Your task to perform on an android device: Open calendar and show me the third week of next month Image 0: 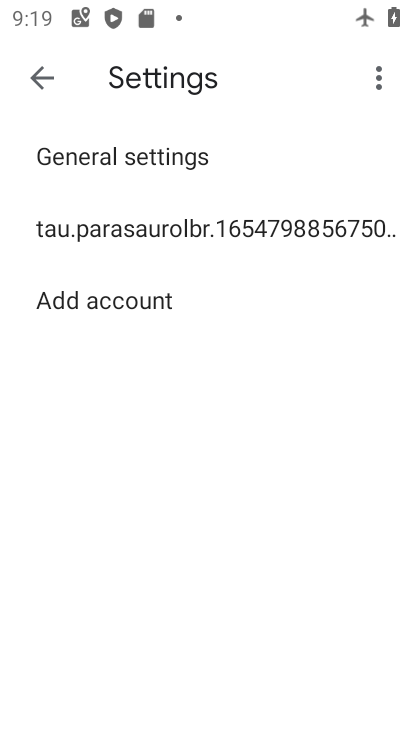
Step 0: press home button
Your task to perform on an android device: Open calendar and show me the third week of next month Image 1: 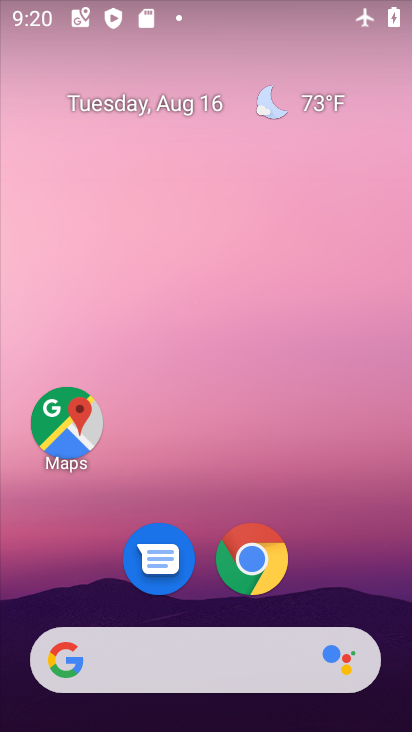
Step 1: drag from (340, 579) to (278, 226)
Your task to perform on an android device: Open calendar and show me the third week of next month Image 2: 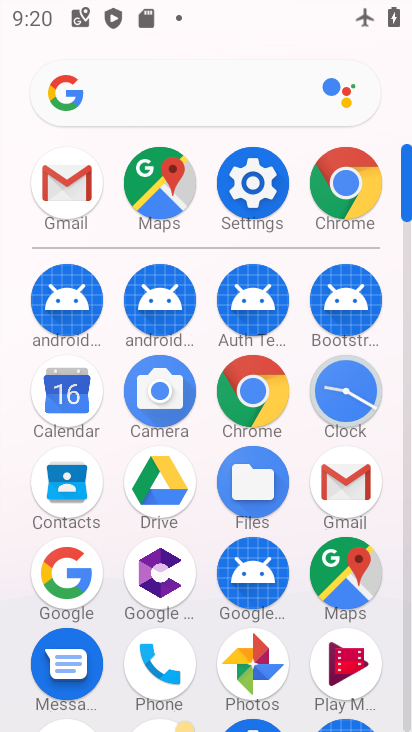
Step 2: click (66, 398)
Your task to perform on an android device: Open calendar and show me the third week of next month Image 3: 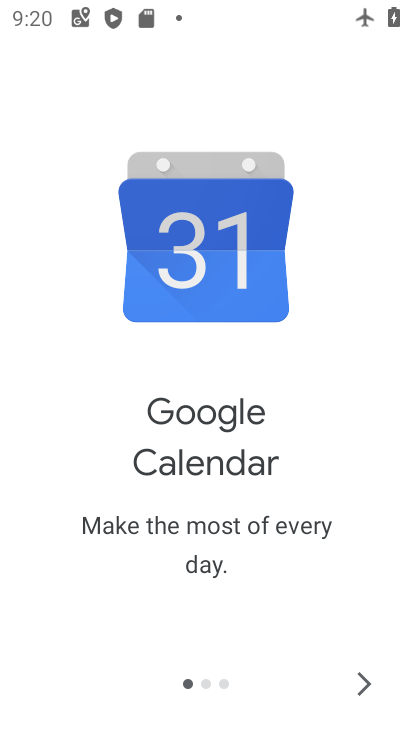
Step 3: click (363, 684)
Your task to perform on an android device: Open calendar and show me the third week of next month Image 4: 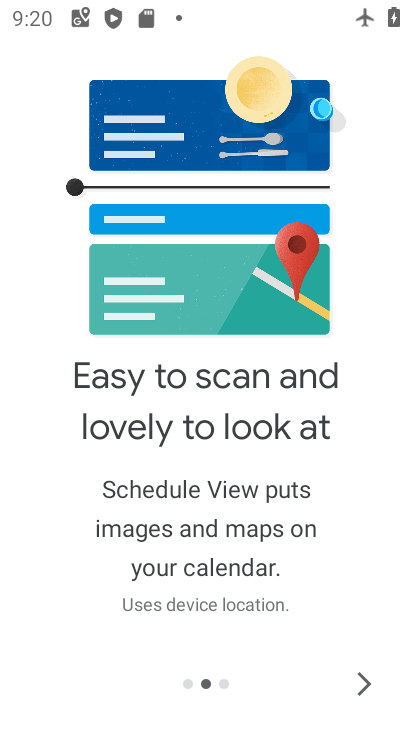
Step 4: click (363, 684)
Your task to perform on an android device: Open calendar and show me the third week of next month Image 5: 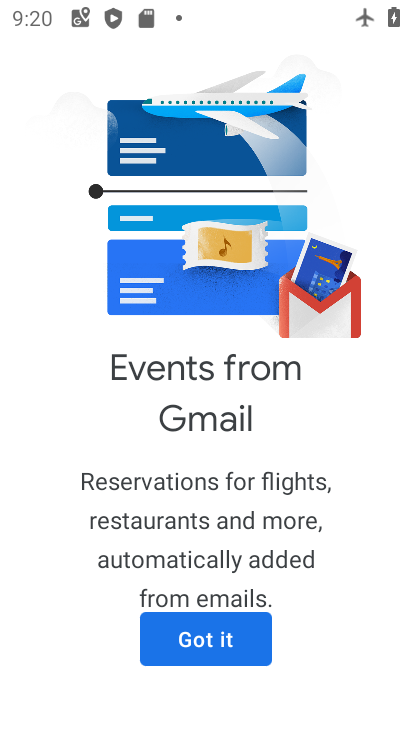
Step 5: click (242, 641)
Your task to perform on an android device: Open calendar and show me the third week of next month Image 6: 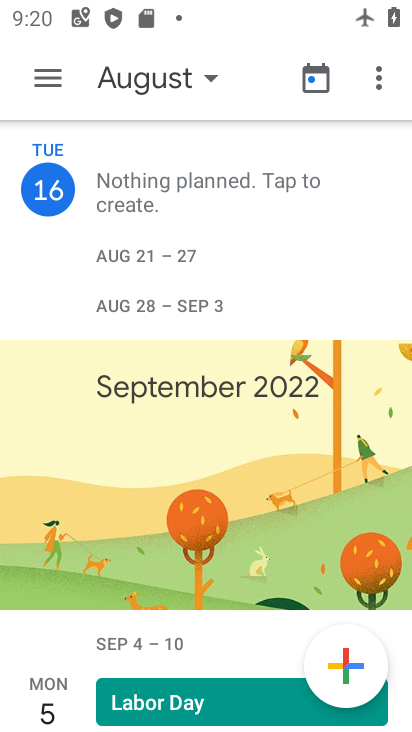
Step 6: click (188, 66)
Your task to perform on an android device: Open calendar and show me the third week of next month Image 7: 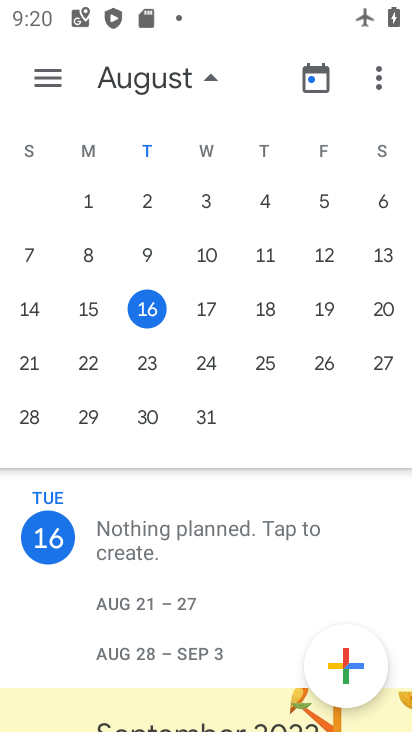
Step 7: drag from (344, 244) to (0, 251)
Your task to perform on an android device: Open calendar and show me the third week of next month Image 8: 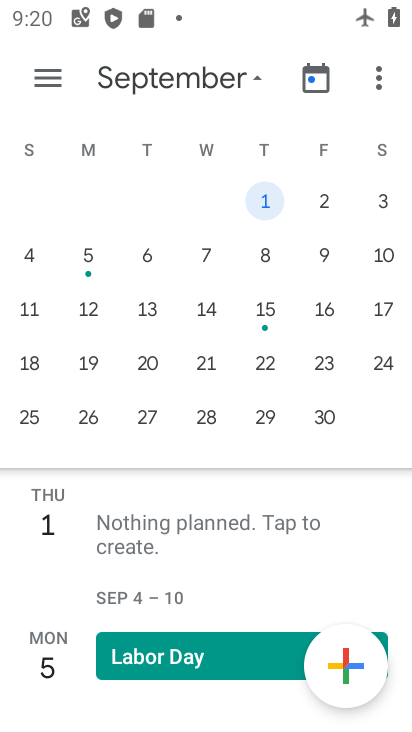
Step 8: click (264, 317)
Your task to perform on an android device: Open calendar and show me the third week of next month Image 9: 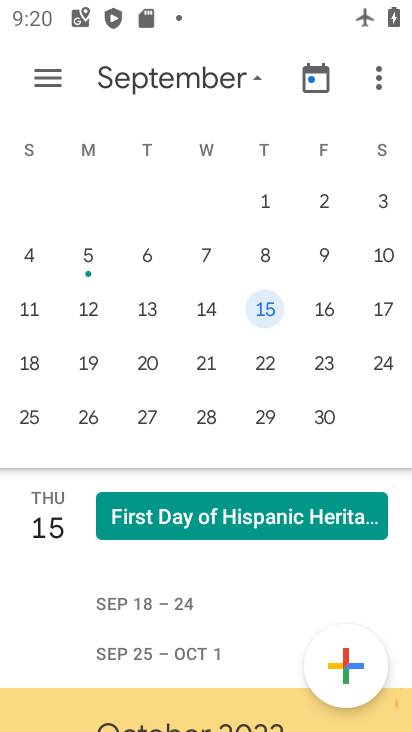
Step 9: task complete